Your task to perform on an android device: Go to settings Image 0: 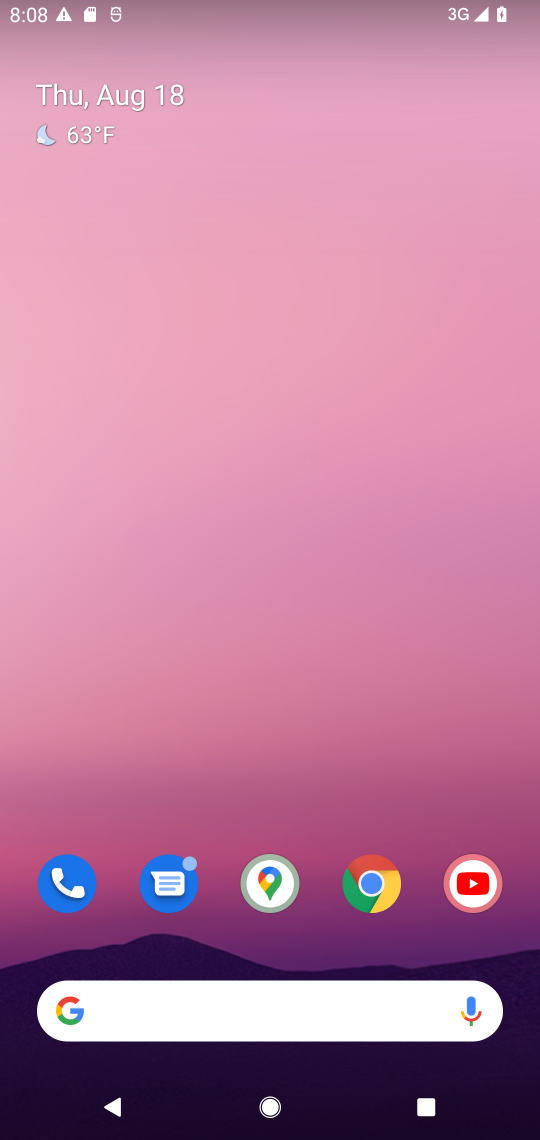
Step 0: drag from (35, 1054) to (233, 457)
Your task to perform on an android device: Go to settings Image 1: 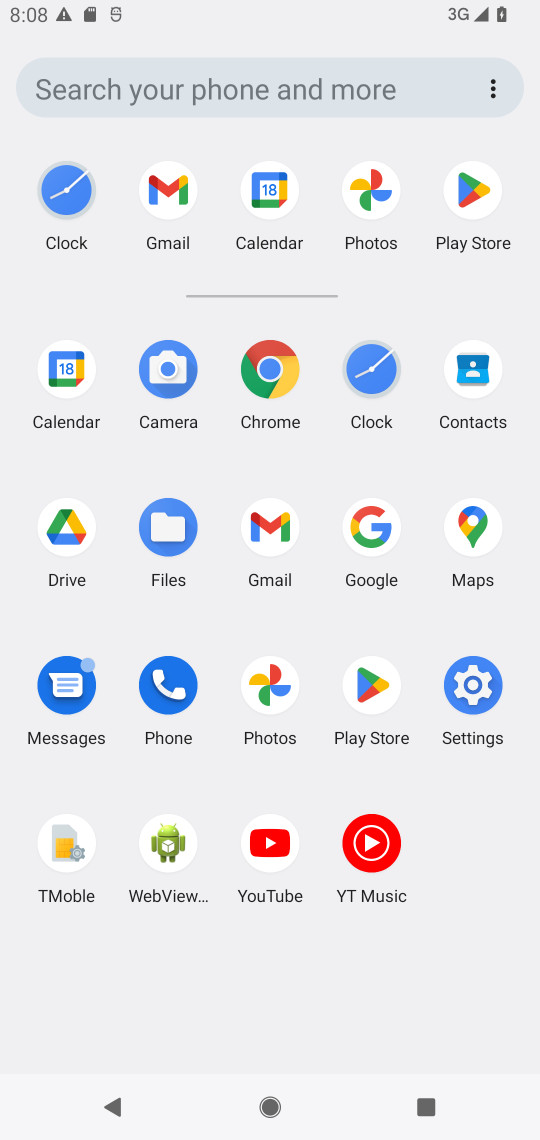
Step 1: click (473, 697)
Your task to perform on an android device: Go to settings Image 2: 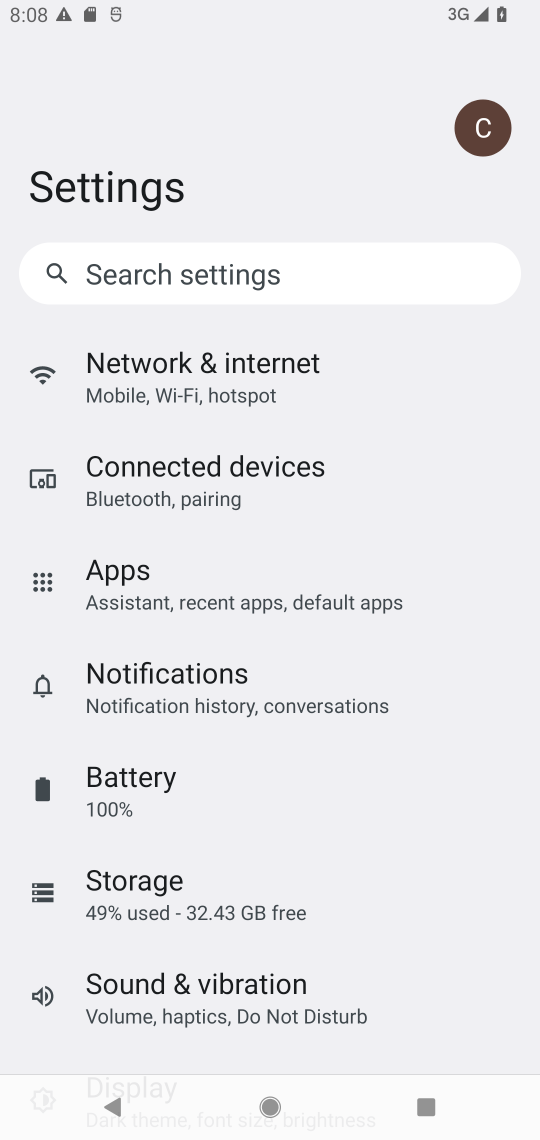
Step 2: task complete